Your task to perform on an android device: search for starred emails in the gmail app Image 0: 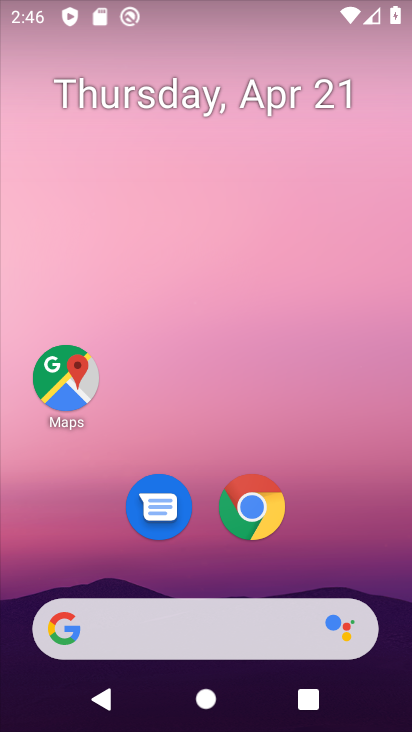
Step 0: drag from (305, 396) to (305, 261)
Your task to perform on an android device: search for starred emails in the gmail app Image 1: 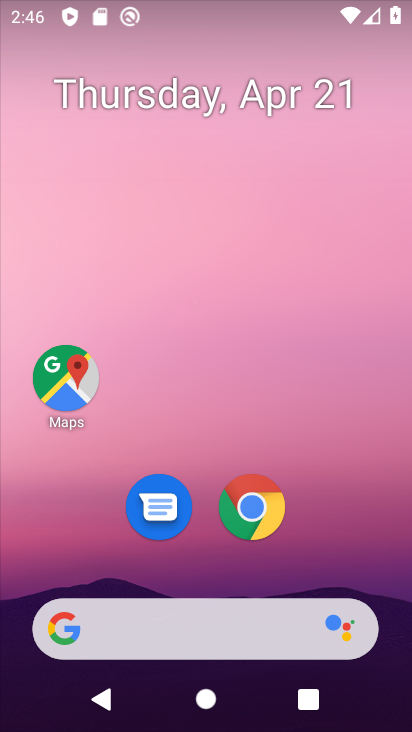
Step 1: drag from (341, 536) to (359, 261)
Your task to perform on an android device: search for starred emails in the gmail app Image 2: 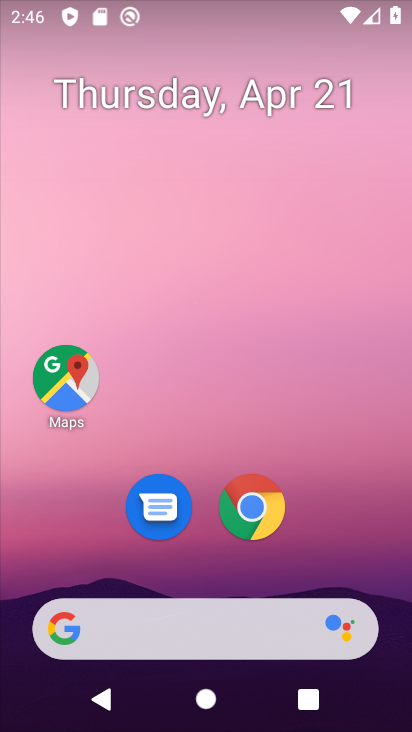
Step 2: drag from (337, 562) to (356, 227)
Your task to perform on an android device: search for starred emails in the gmail app Image 3: 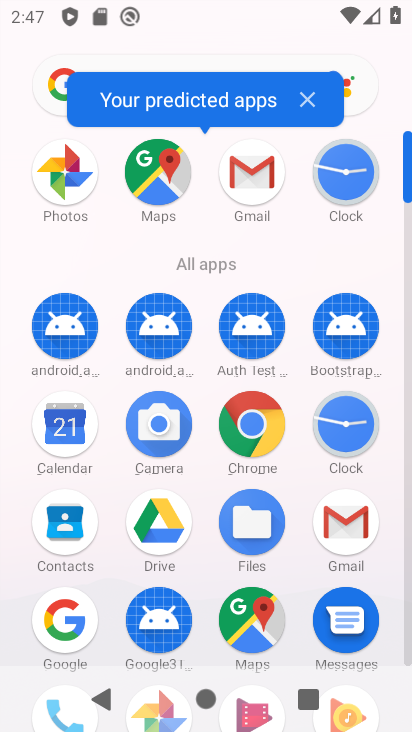
Step 3: click (349, 530)
Your task to perform on an android device: search for starred emails in the gmail app Image 4: 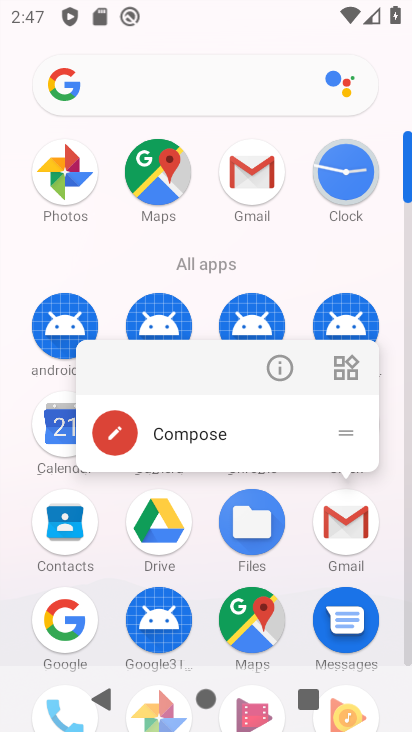
Step 4: click (360, 521)
Your task to perform on an android device: search for starred emails in the gmail app Image 5: 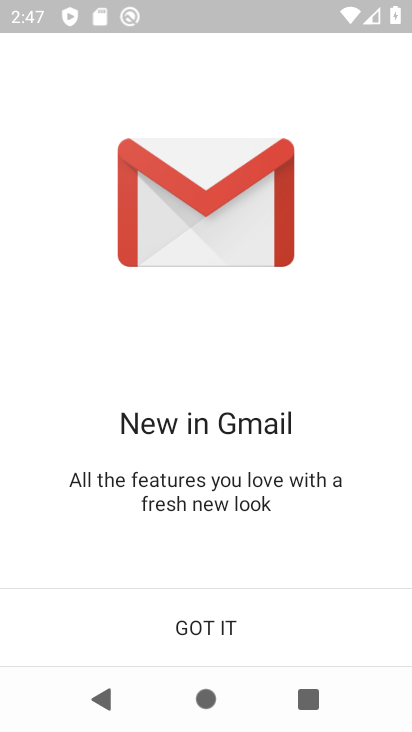
Step 5: click (227, 623)
Your task to perform on an android device: search for starred emails in the gmail app Image 6: 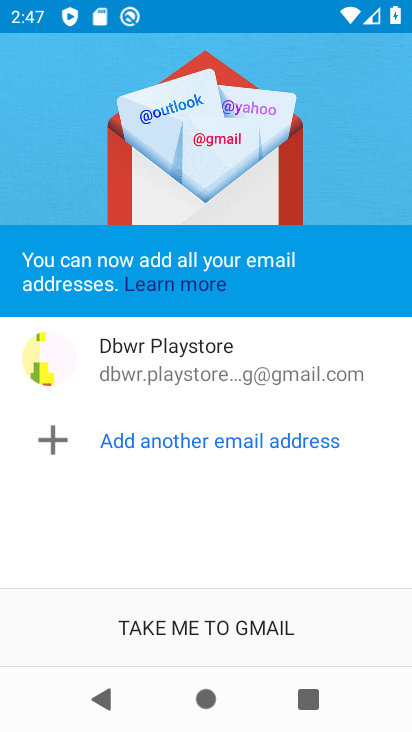
Step 6: click (236, 632)
Your task to perform on an android device: search for starred emails in the gmail app Image 7: 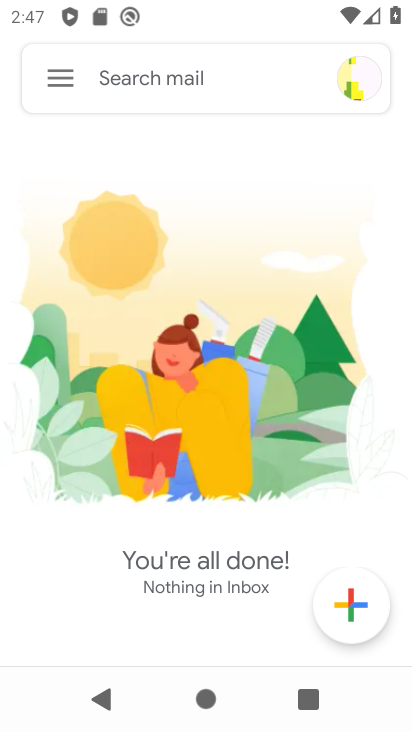
Step 7: click (56, 80)
Your task to perform on an android device: search for starred emails in the gmail app Image 8: 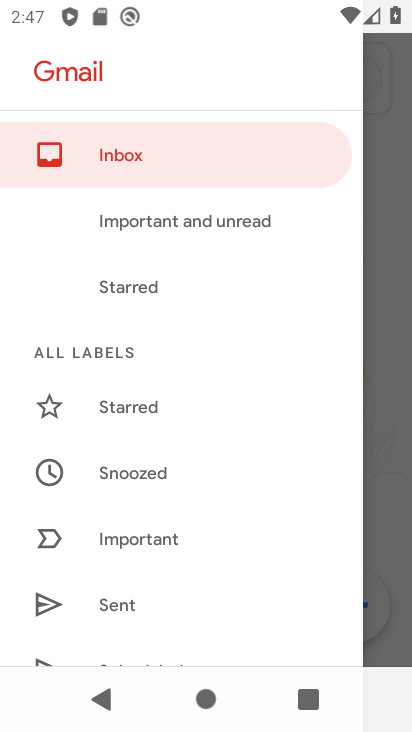
Step 8: click (164, 415)
Your task to perform on an android device: search for starred emails in the gmail app Image 9: 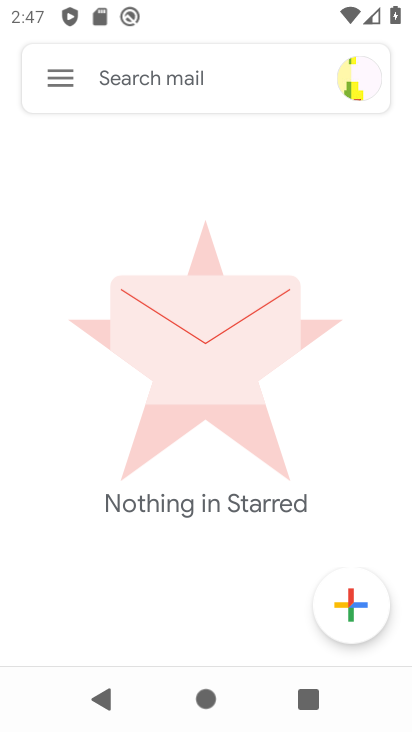
Step 9: task complete